Your task to perform on an android device: Go to Google maps Image 0: 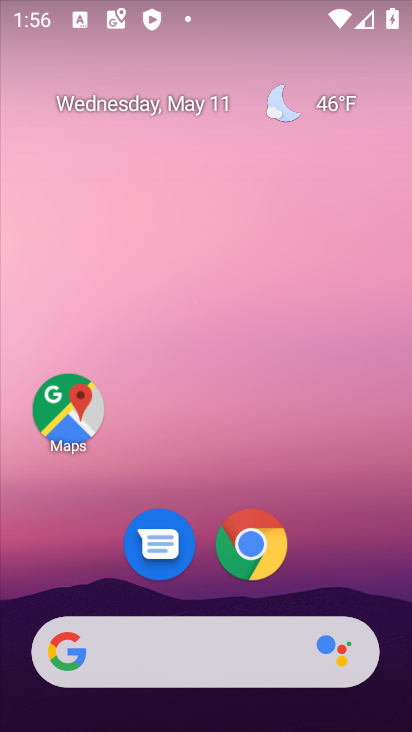
Step 0: click (68, 405)
Your task to perform on an android device: Go to Google maps Image 1: 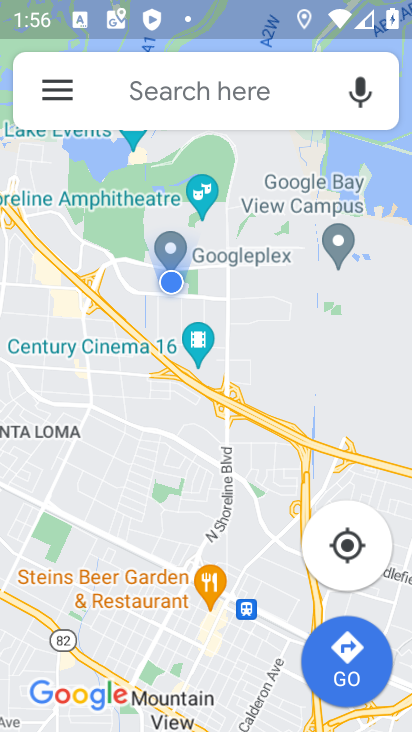
Step 1: task complete